Your task to perform on an android device: snooze an email in the gmail app Image 0: 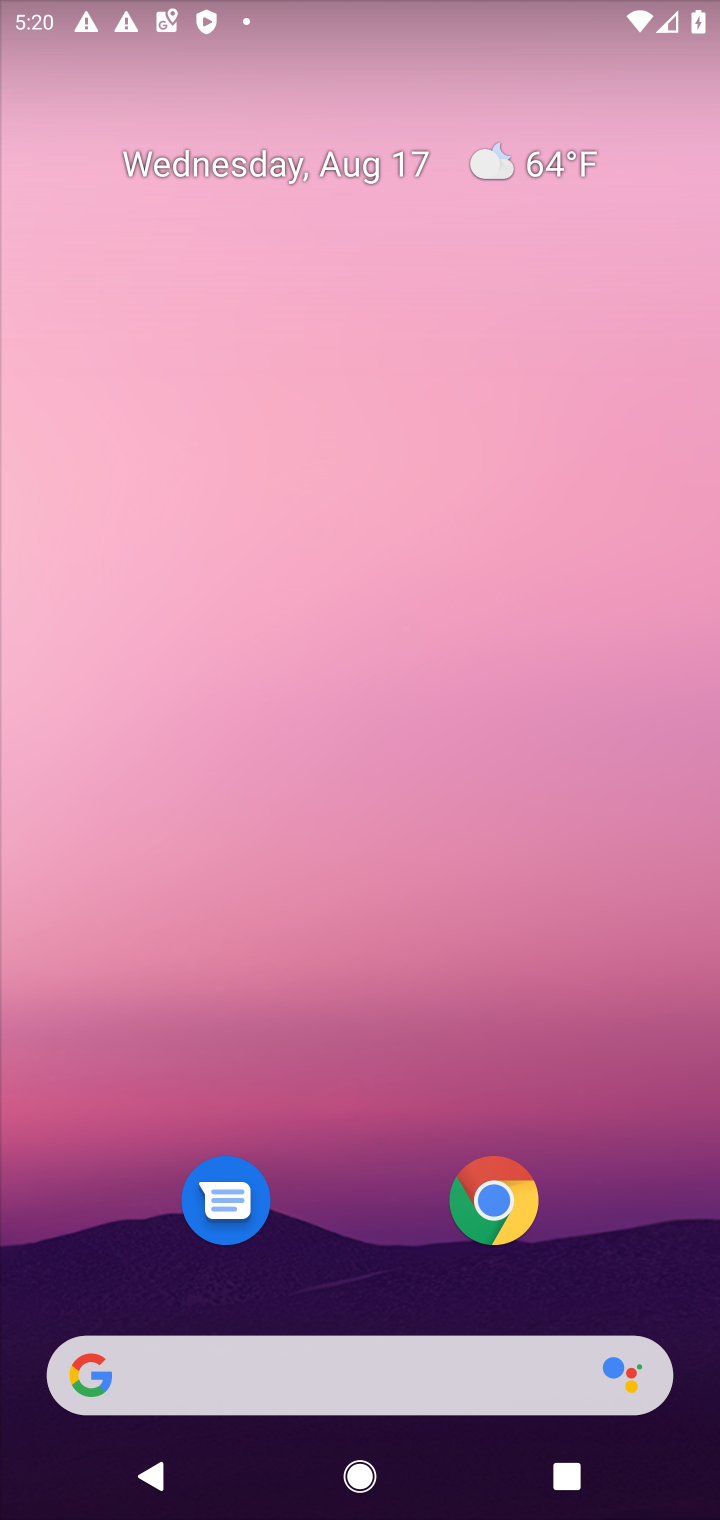
Step 0: drag from (369, 1313) to (342, 63)
Your task to perform on an android device: snooze an email in the gmail app Image 1: 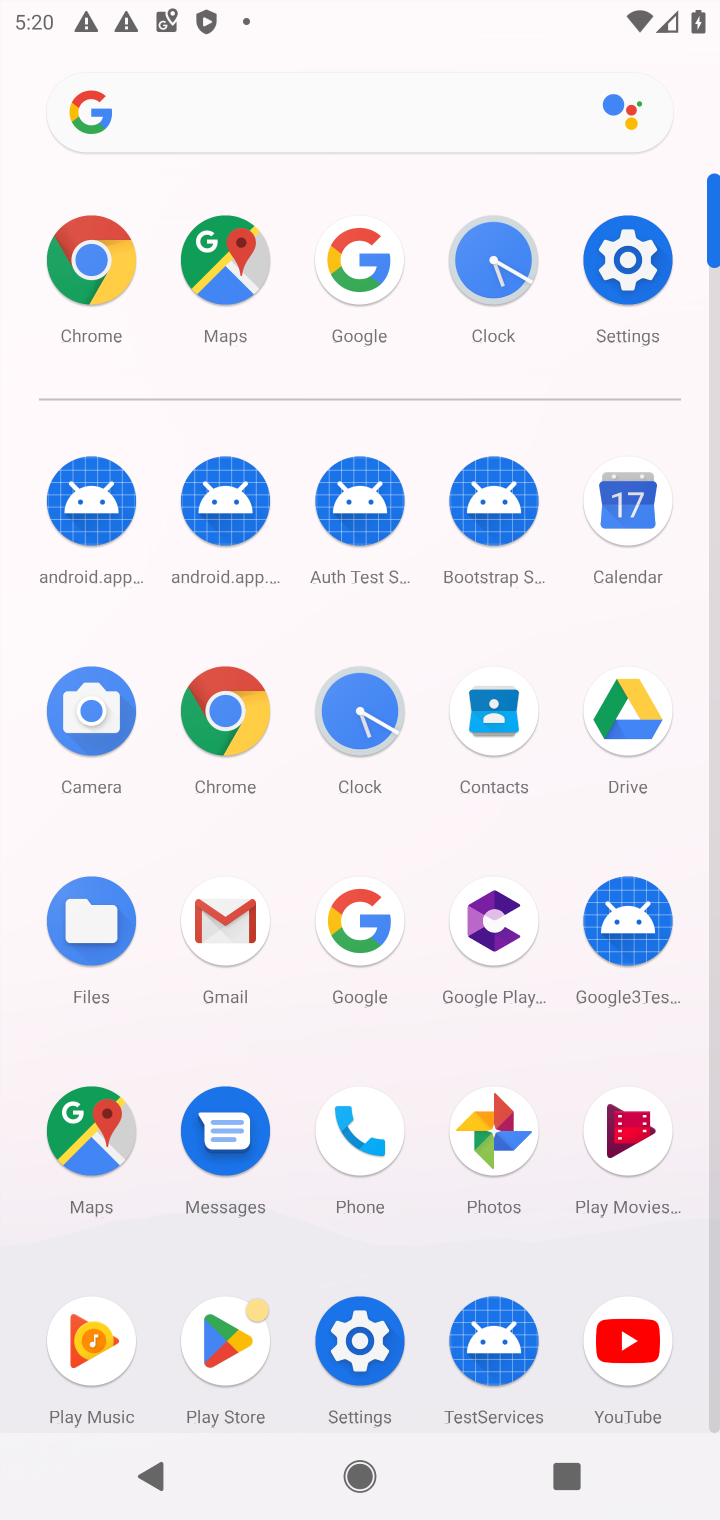
Step 1: click (219, 918)
Your task to perform on an android device: snooze an email in the gmail app Image 2: 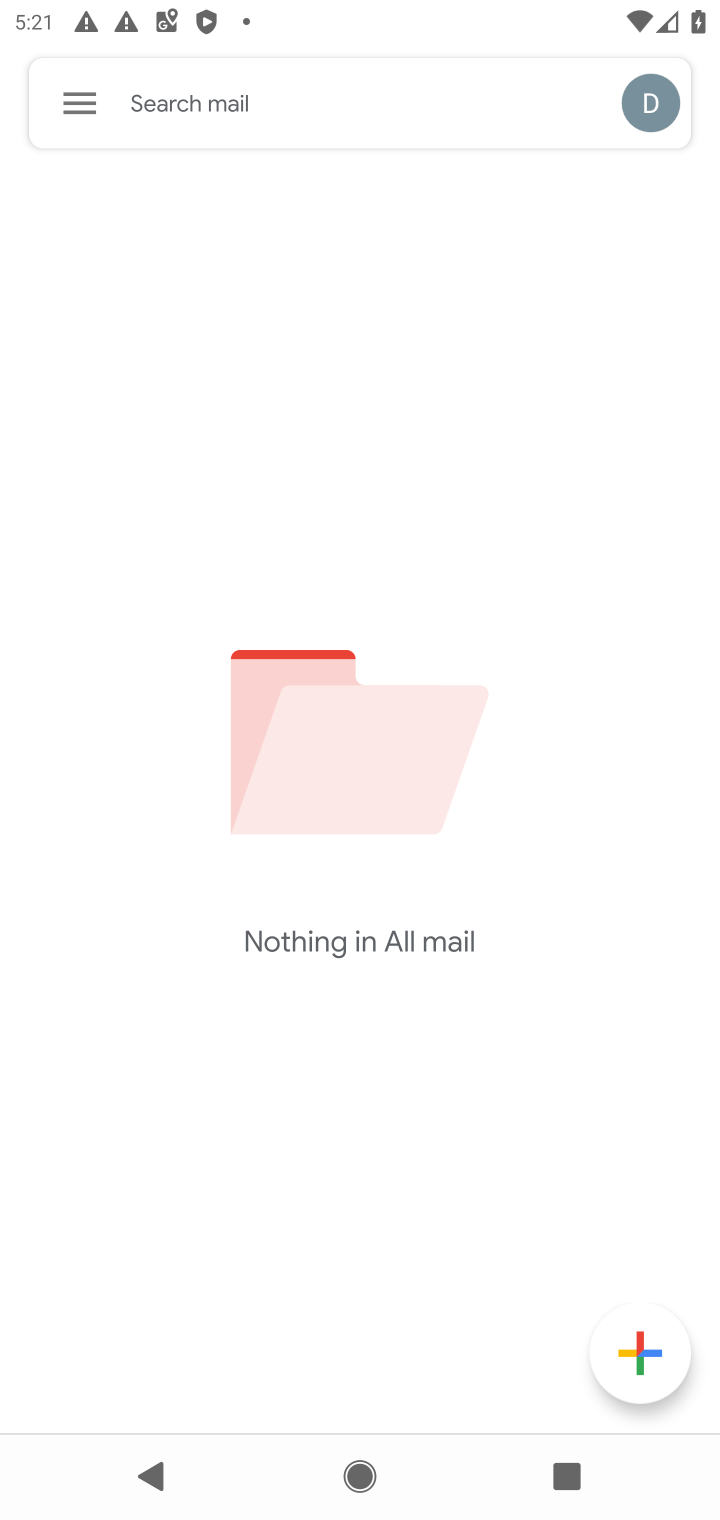
Step 2: click (74, 99)
Your task to perform on an android device: snooze an email in the gmail app Image 3: 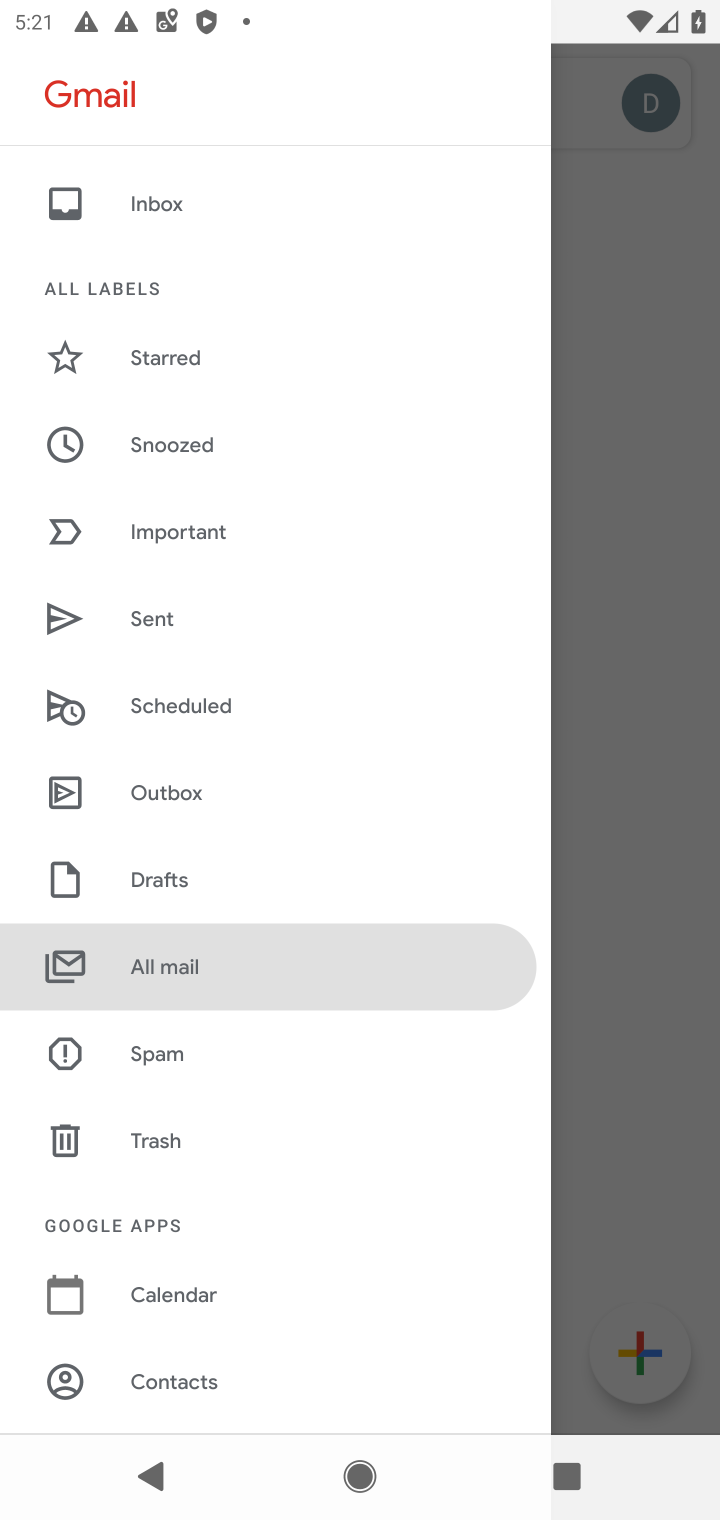
Step 3: click (149, 193)
Your task to perform on an android device: snooze an email in the gmail app Image 4: 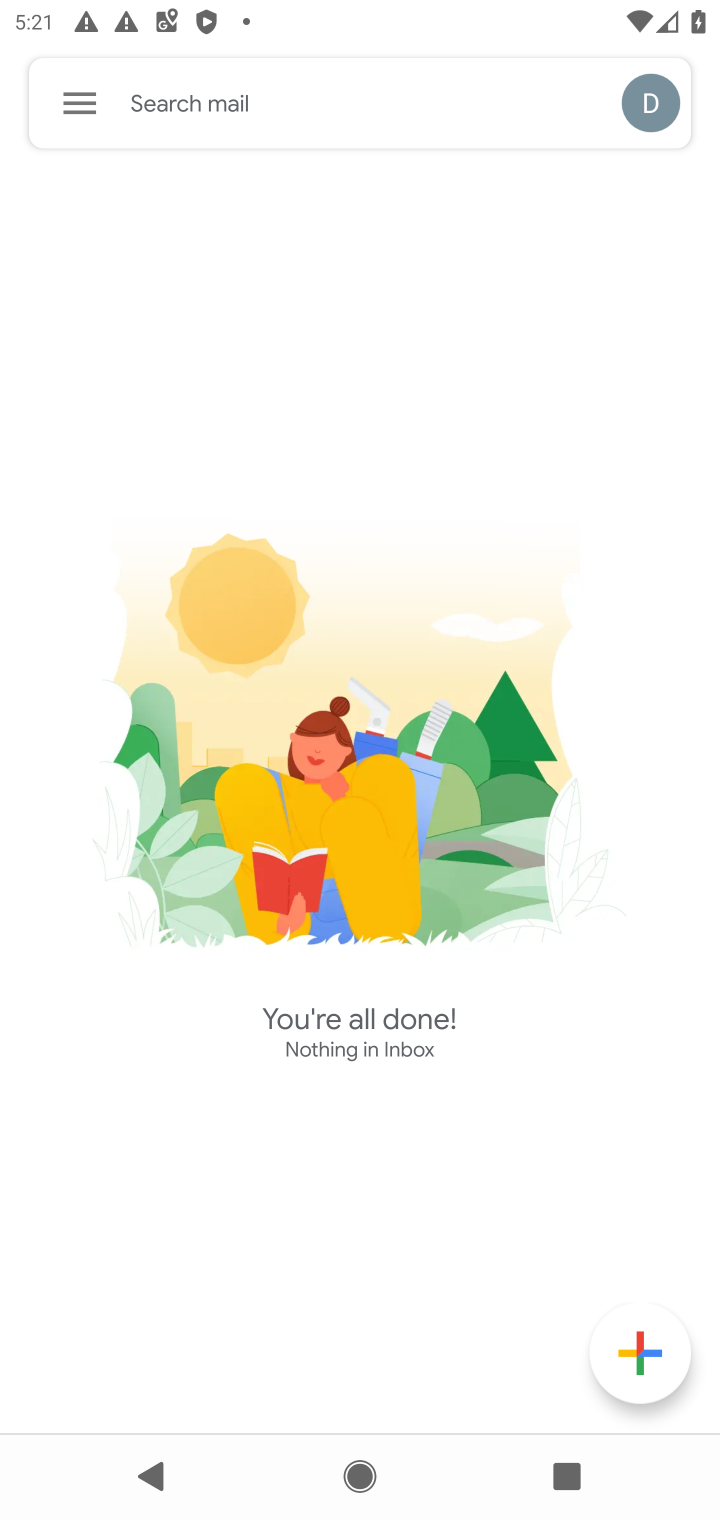
Step 4: task complete